Your task to perform on an android device: Open Reddit.com Image 0: 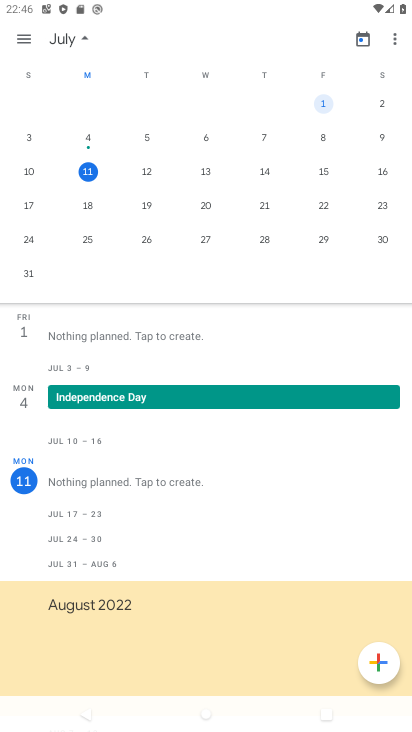
Step 0: press home button
Your task to perform on an android device: Open Reddit.com Image 1: 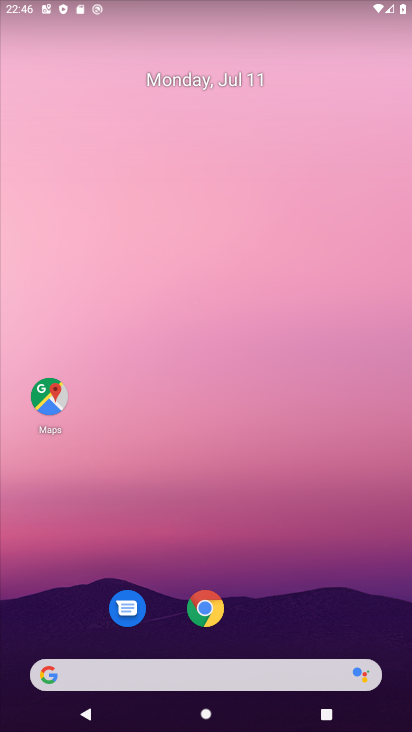
Step 1: click (153, 675)
Your task to perform on an android device: Open Reddit.com Image 2: 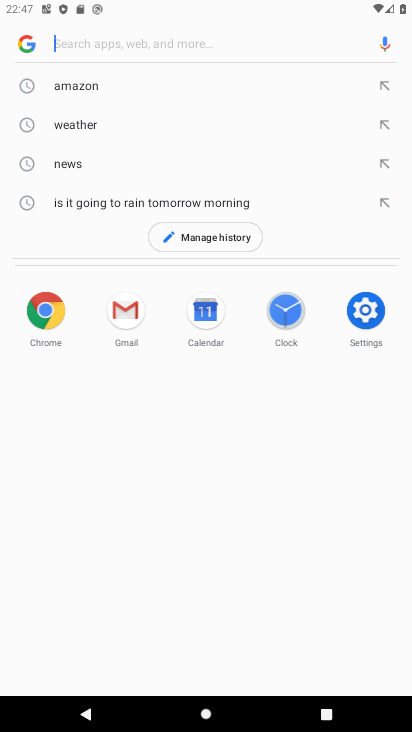
Step 2: type "Reddit.com"
Your task to perform on an android device: Open Reddit.com Image 3: 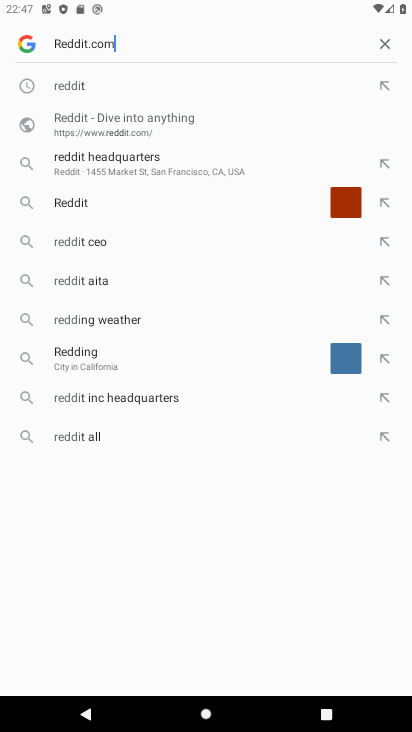
Step 3: type ""
Your task to perform on an android device: Open Reddit.com Image 4: 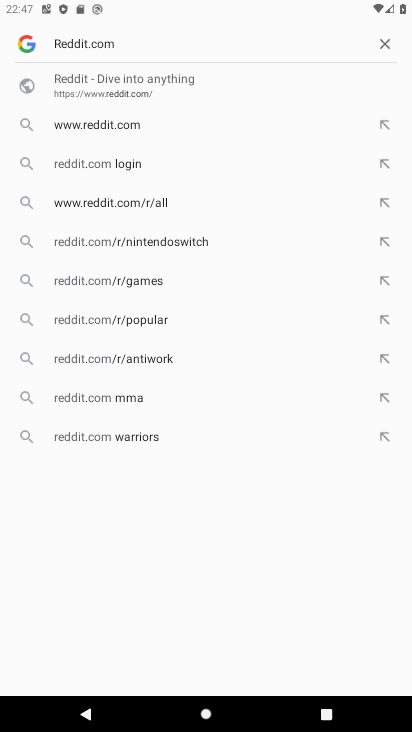
Step 4: click (189, 114)
Your task to perform on an android device: Open Reddit.com Image 5: 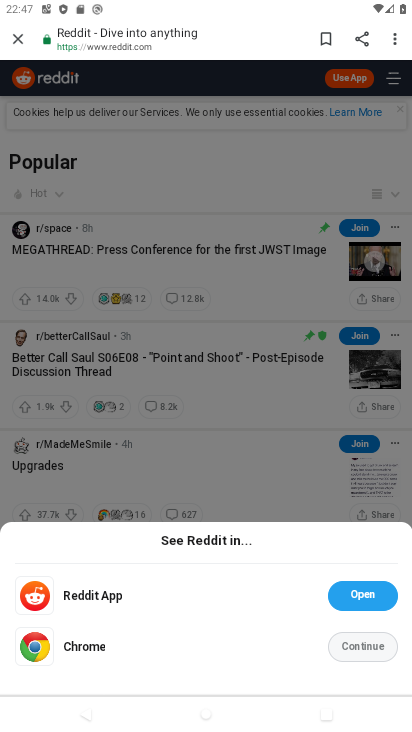
Step 5: task complete